Your task to perform on an android device: What's the weather? Image 0: 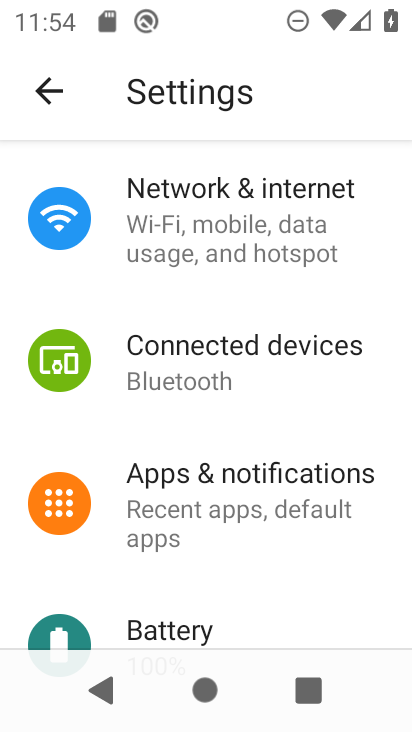
Step 0: press home button
Your task to perform on an android device: What's the weather? Image 1: 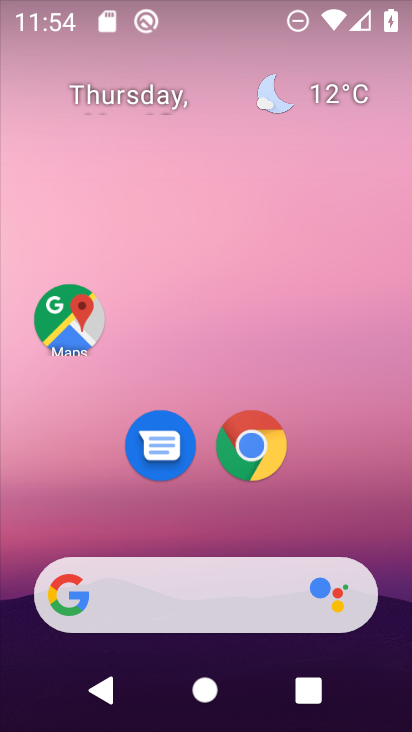
Step 1: click (347, 103)
Your task to perform on an android device: What's the weather? Image 2: 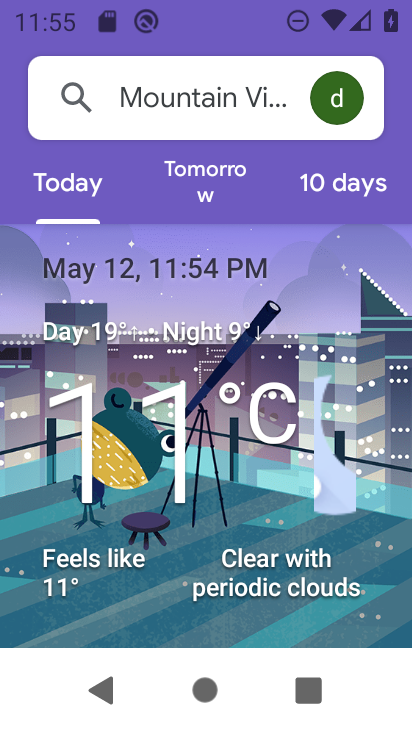
Step 2: task complete